Your task to perform on an android device: turn on airplane mode Image 0: 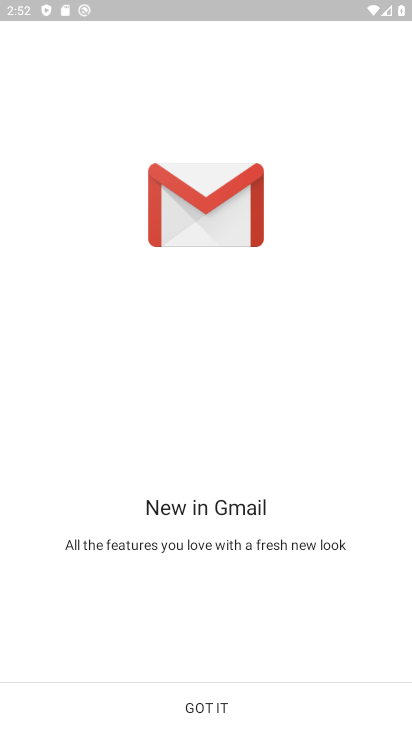
Step 0: press back button
Your task to perform on an android device: turn on airplane mode Image 1: 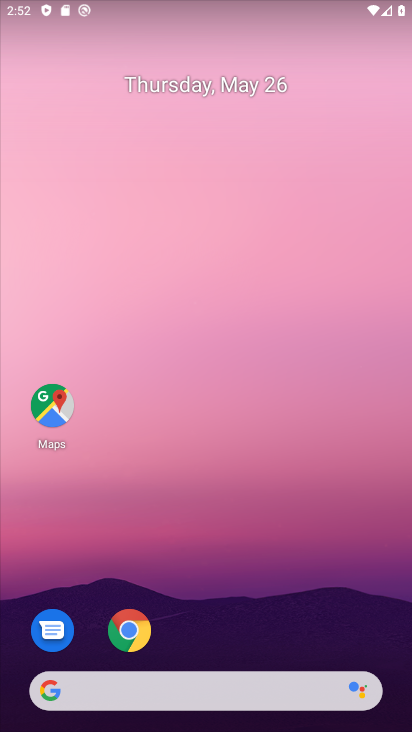
Step 1: drag from (221, 586) to (223, 164)
Your task to perform on an android device: turn on airplane mode Image 2: 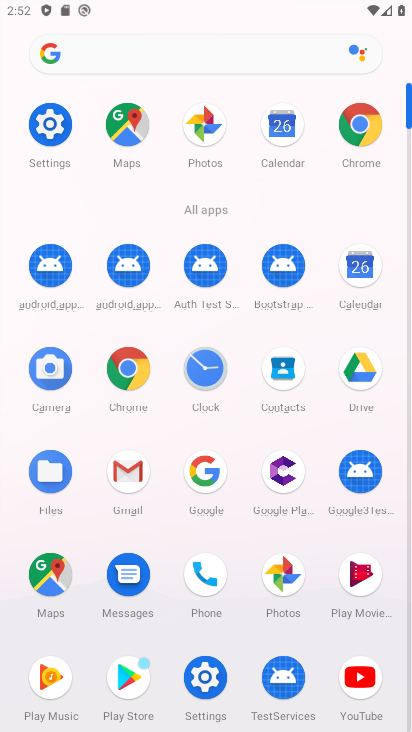
Step 2: click (203, 677)
Your task to perform on an android device: turn on airplane mode Image 3: 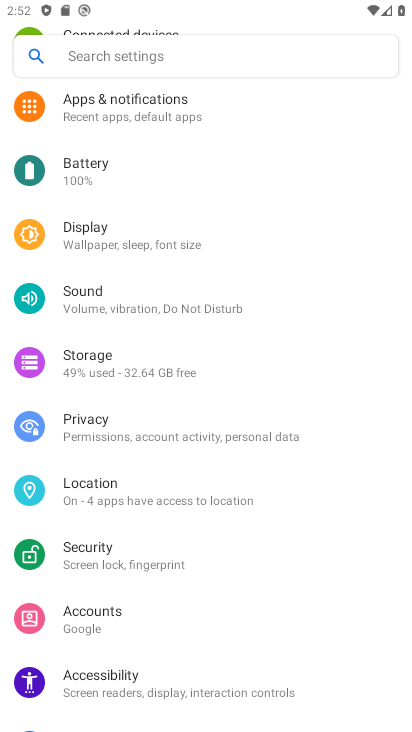
Step 3: drag from (154, 210) to (183, 344)
Your task to perform on an android device: turn on airplane mode Image 4: 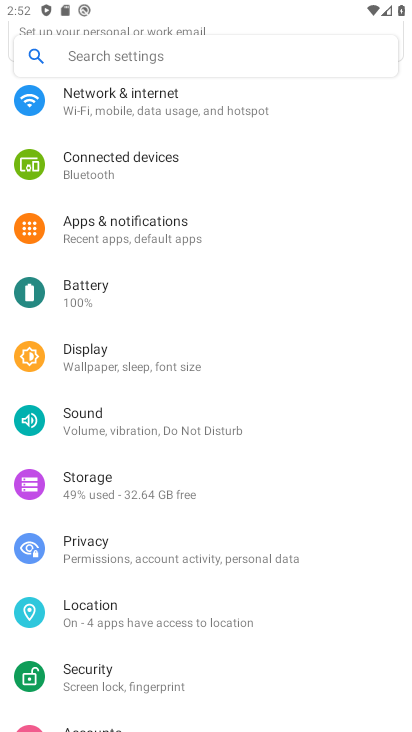
Step 4: drag from (149, 219) to (151, 385)
Your task to perform on an android device: turn on airplane mode Image 5: 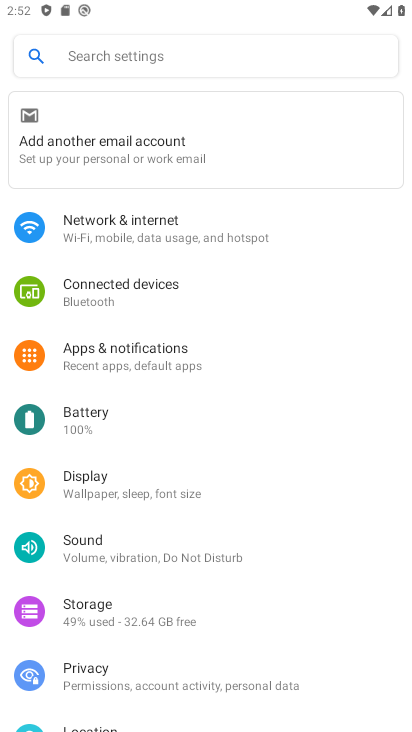
Step 5: click (138, 227)
Your task to perform on an android device: turn on airplane mode Image 6: 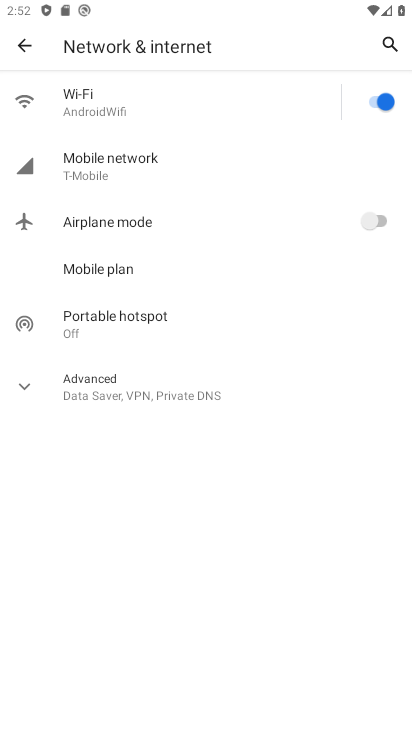
Step 6: click (368, 218)
Your task to perform on an android device: turn on airplane mode Image 7: 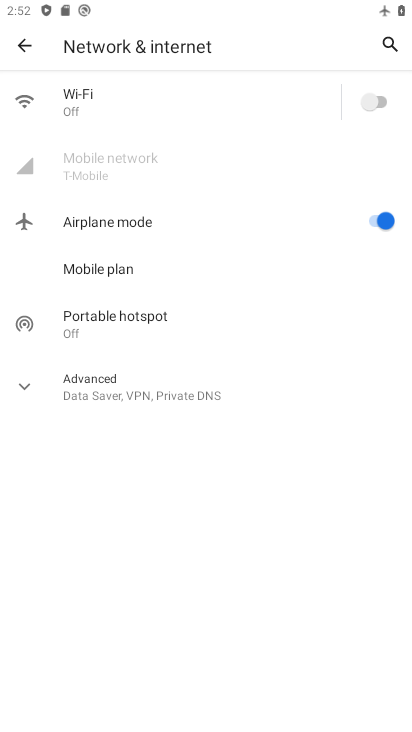
Step 7: task complete